Your task to perform on an android device: Go to ESPN.com Image 0: 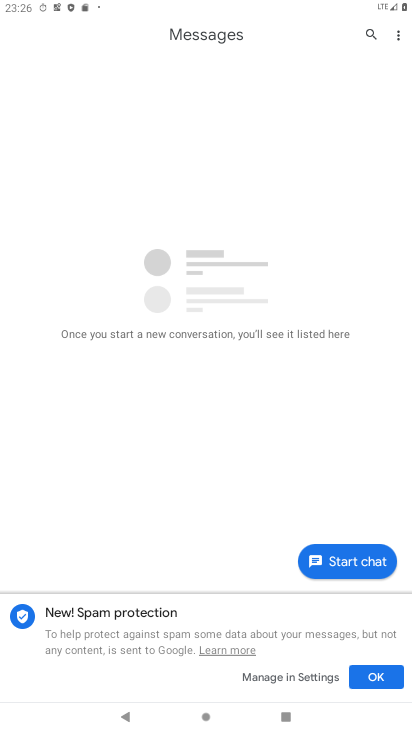
Step 0: press home button
Your task to perform on an android device: Go to ESPN.com Image 1: 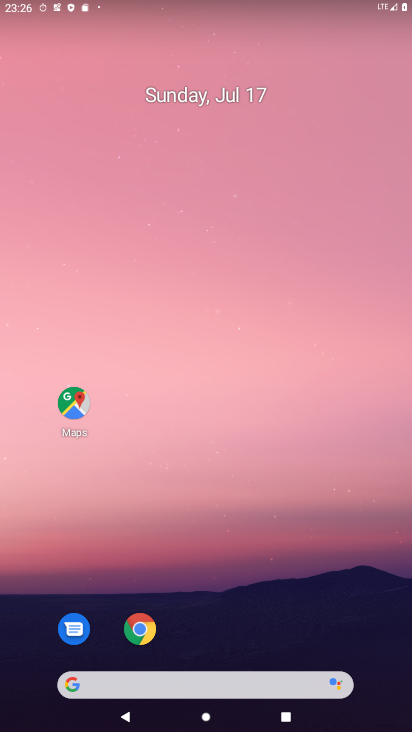
Step 1: drag from (236, 709) to (196, 139)
Your task to perform on an android device: Go to ESPN.com Image 2: 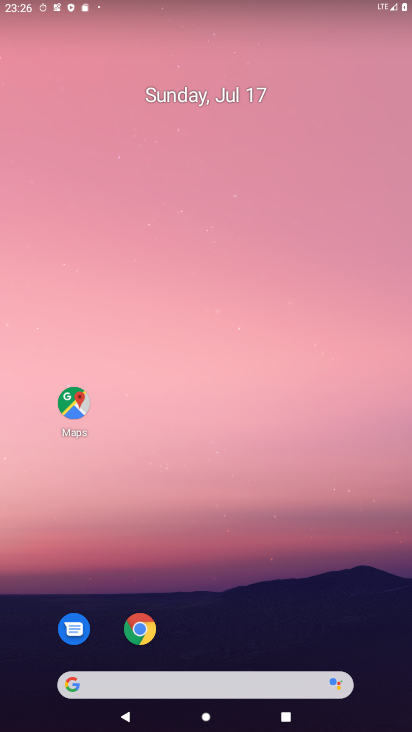
Step 2: click (142, 628)
Your task to perform on an android device: Go to ESPN.com Image 3: 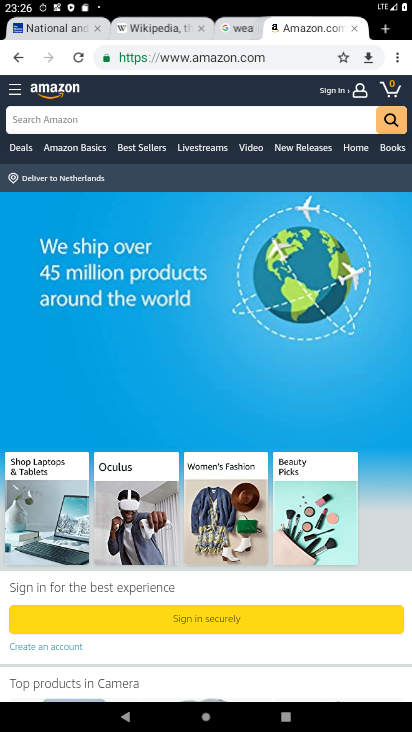
Step 3: click (399, 60)
Your task to perform on an android device: Go to ESPN.com Image 4: 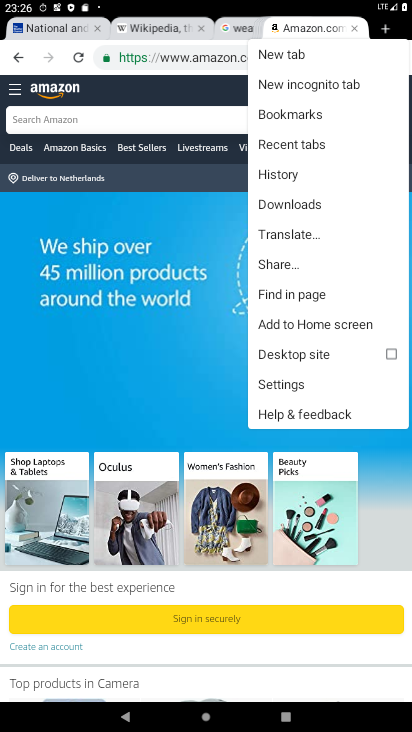
Step 4: click (267, 52)
Your task to perform on an android device: Go to ESPN.com Image 5: 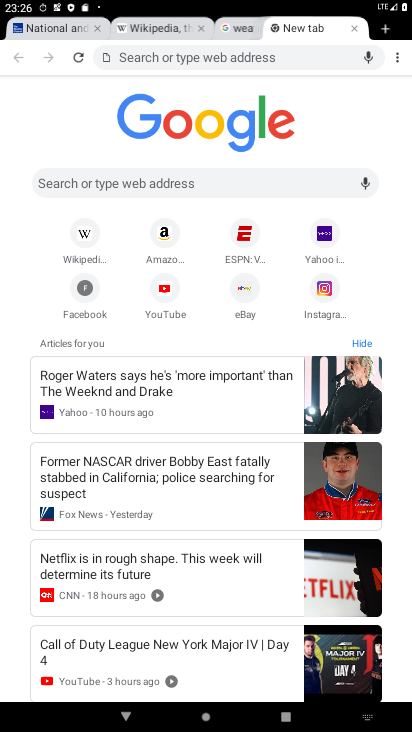
Step 5: click (246, 239)
Your task to perform on an android device: Go to ESPN.com Image 6: 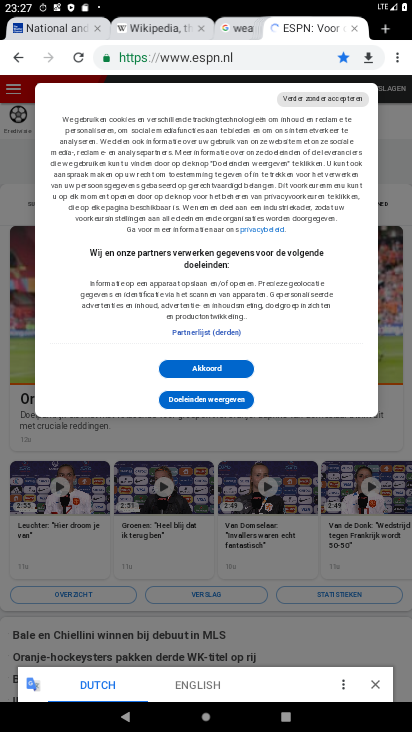
Step 6: click (199, 367)
Your task to perform on an android device: Go to ESPN.com Image 7: 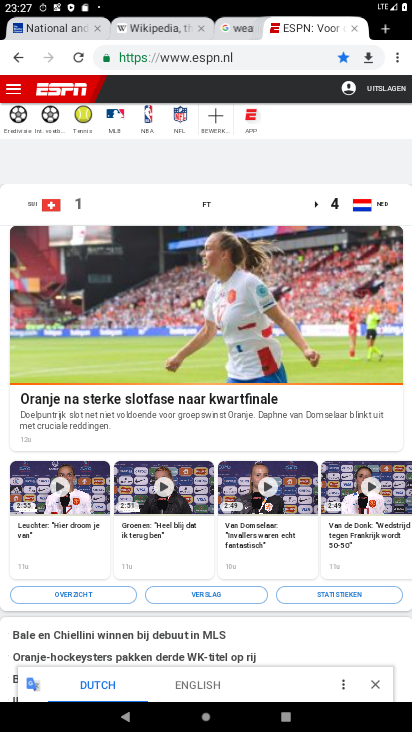
Step 7: task complete